Your task to perform on an android device: What's on my calendar tomorrow? Image 0: 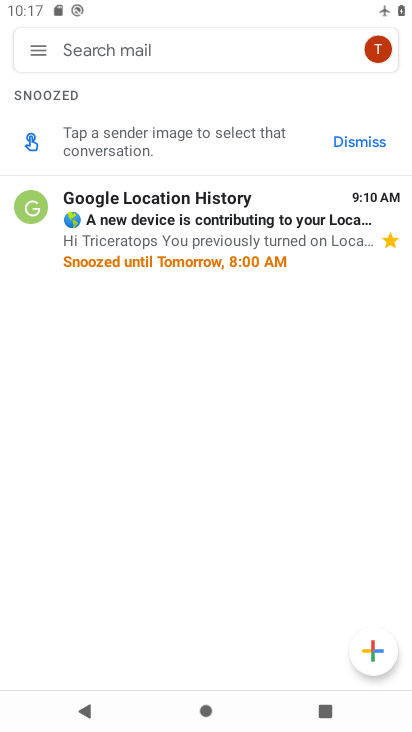
Step 0: press home button
Your task to perform on an android device: What's on my calendar tomorrow? Image 1: 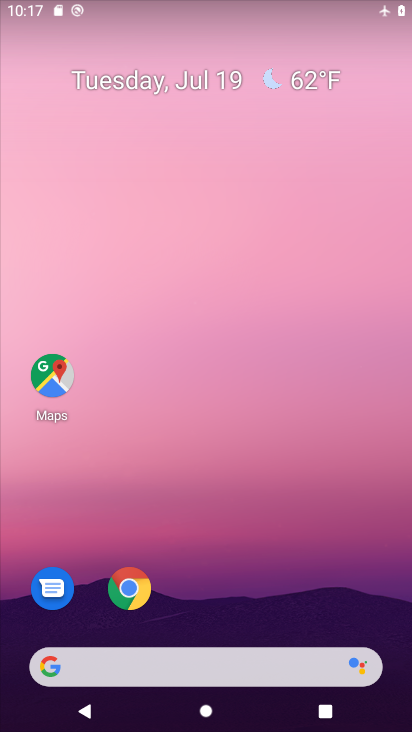
Step 1: drag from (185, 549) to (174, 203)
Your task to perform on an android device: What's on my calendar tomorrow? Image 2: 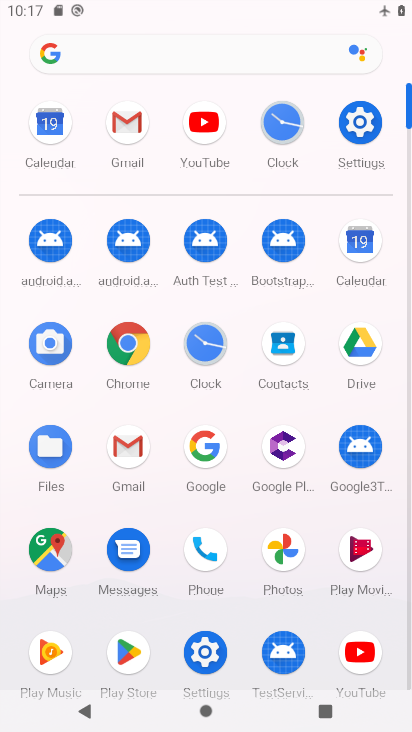
Step 2: click (352, 278)
Your task to perform on an android device: What's on my calendar tomorrow? Image 3: 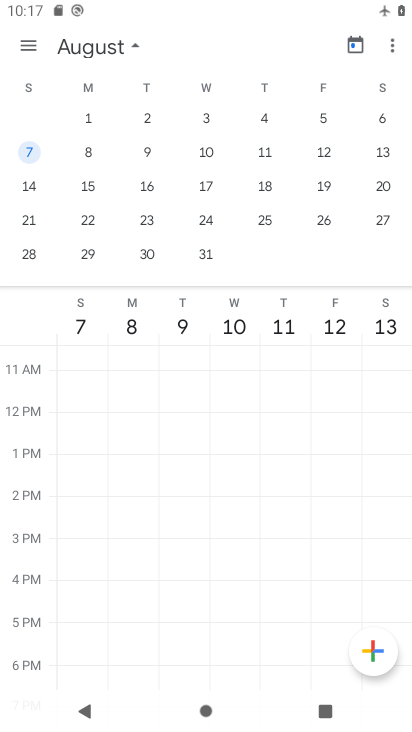
Step 3: drag from (48, 182) to (344, 205)
Your task to perform on an android device: What's on my calendar tomorrow? Image 4: 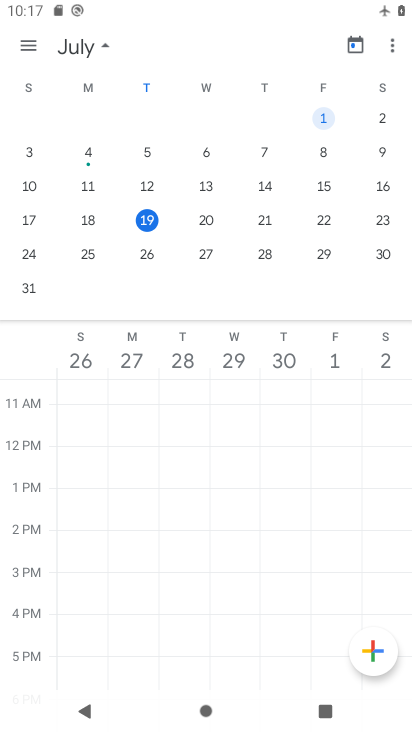
Step 4: click (208, 220)
Your task to perform on an android device: What's on my calendar tomorrow? Image 5: 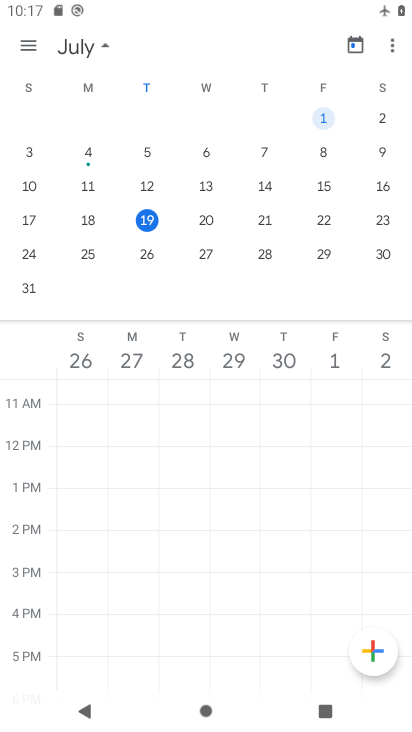
Step 5: click (208, 220)
Your task to perform on an android device: What's on my calendar tomorrow? Image 6: 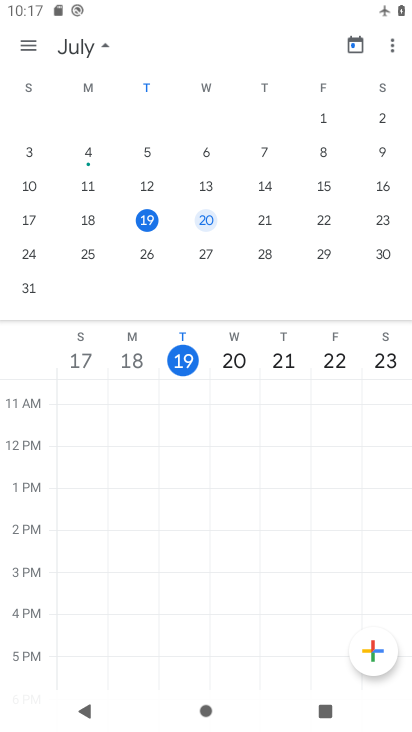
Step 6: click (233, 367)
Your task to perform on an android device: What's on my calendar tomorrow? Image 7: 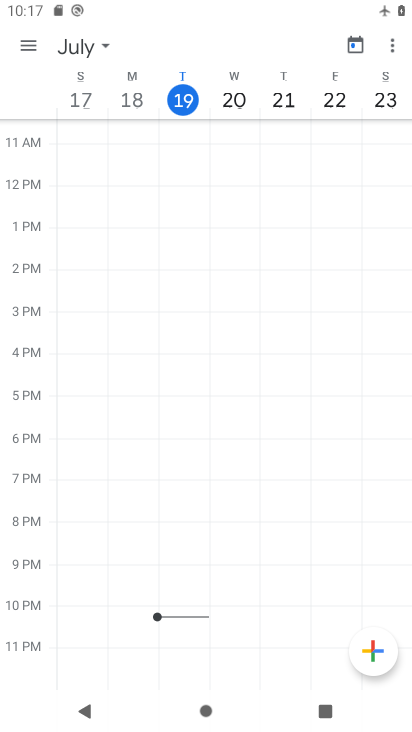
Step 7: task complete